Your task to perform on an android device: Play the last video I watched on Youtube Image 0: 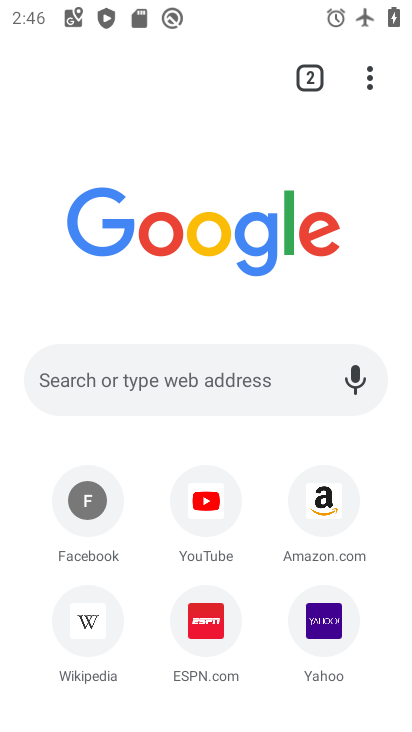
Step 0: press home button
Your task to perform on an android device: Play the last video I watched on Youtube Image 1: 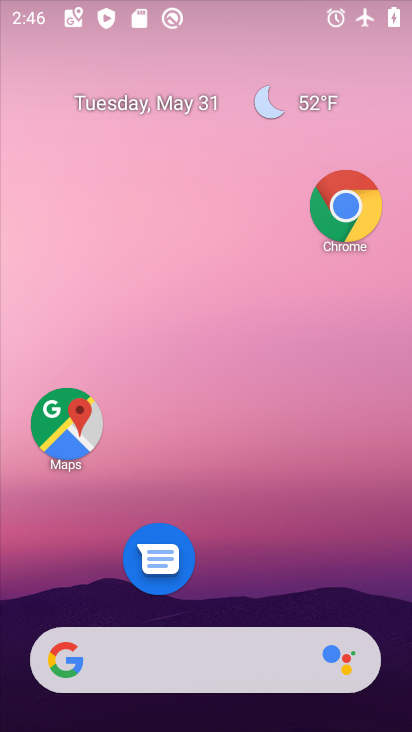
Step 1: drag from (135, 263) to (135, 169)
Your task to perform on an android device: Play the last video I watched on Youtube Image 2: 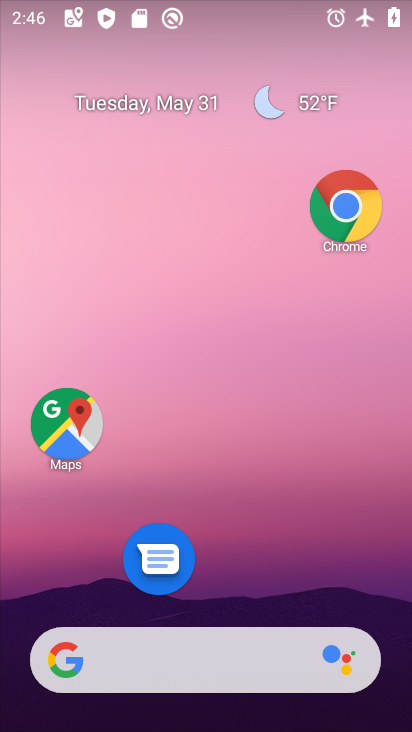
Step 2: drag from (240, 547) to (202, 5)
Your task to perform on an android device: Play the last video I watched on Youtube Image 3: 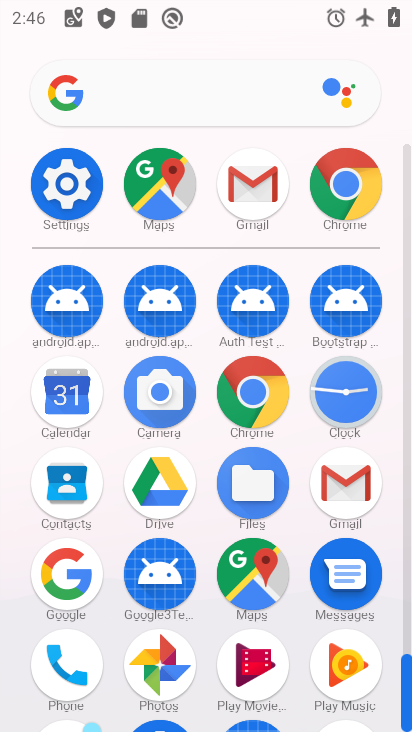
Step 3: drag from (200, 264) to (205, 8)
Your task to perform on an android device: Play the last video I watched on Youtube Image 4: 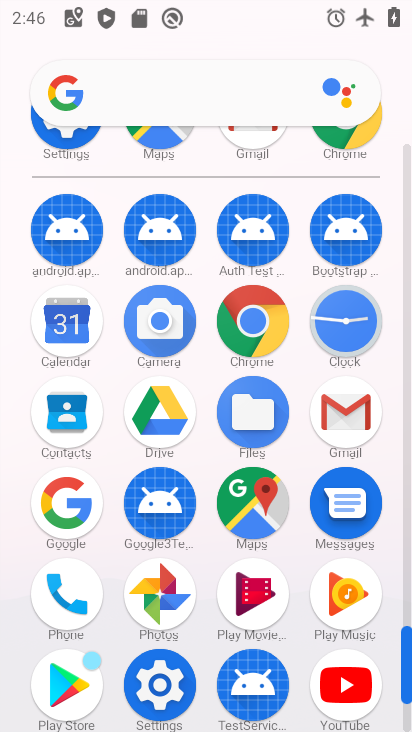
Step 4: click (350, 659)
Your task to perform on an android device: Play the last video I watched on Youtube Image 5: 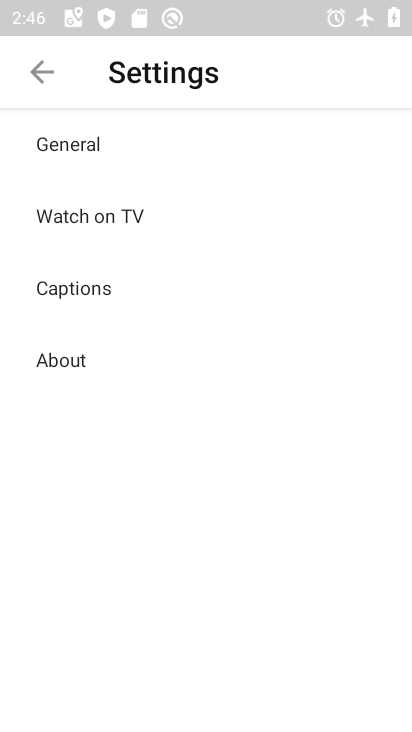
Step 5: press back button
Your task to perform on an android device: Play the last video I watched on Youtube Image 6: 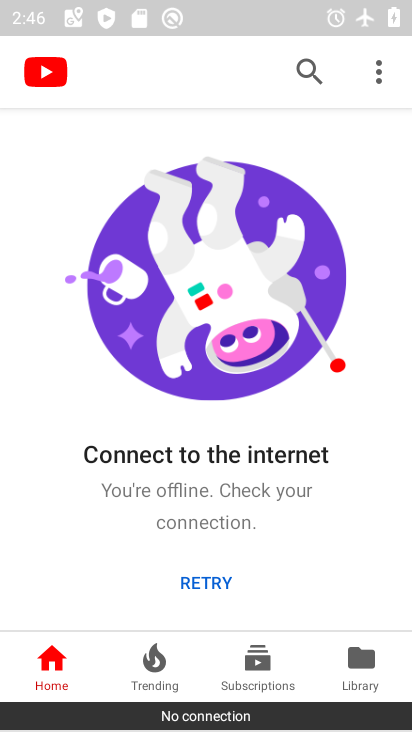
Step 6: click (376, 675)
Your task to perform on an android device: Play the last video I watched on Youtube Image 7: 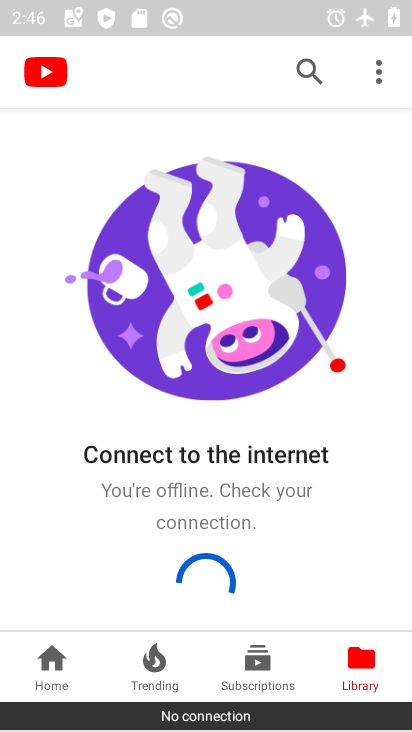
Step 7: task complete